Your task to perform on an android device: turn on data saver in the chrome app Image 0: 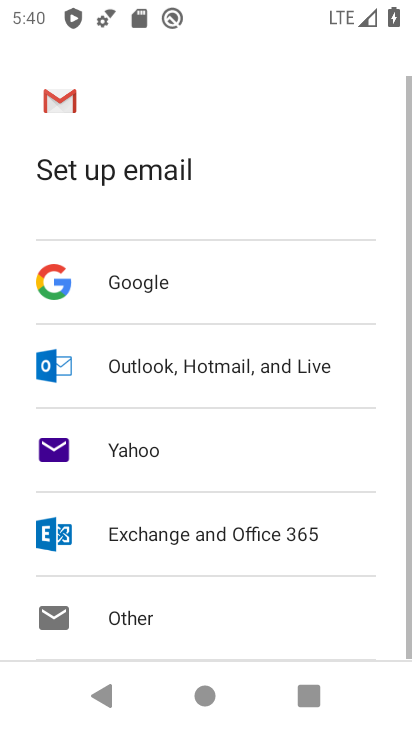
Step 0: press home button
Your task to perform on an android device: turn on data saver in the chrome app Image 1: 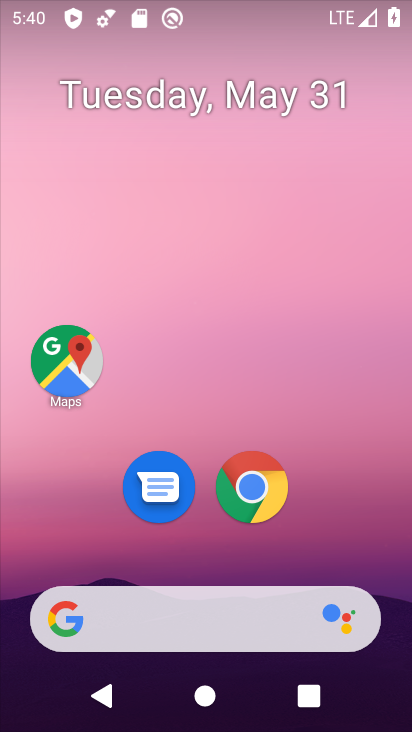
Step 1: click (269, 489)
Your task to perform on an android device: turn on data saver in the chrome app Image 2: 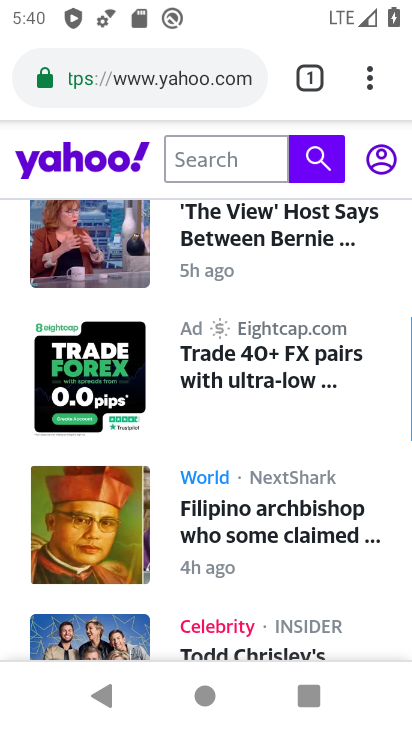
Step 2: click (363, 74)
Your task to perform on an android device: turn on data saver in the chrome app Image 3: 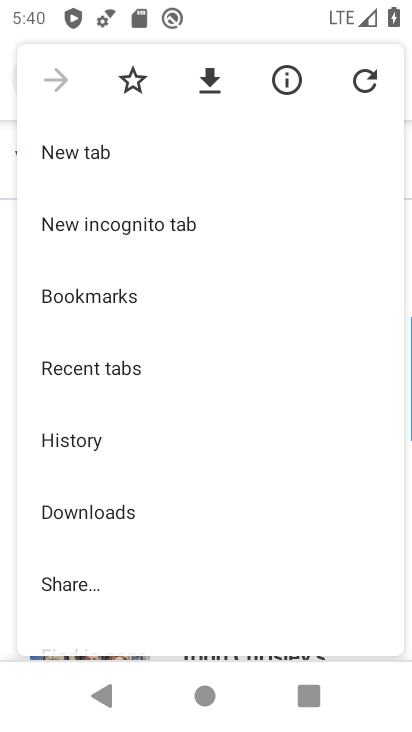
Step 3: drag from (215, 523) to (188, 224)
Your task to perform on an android device: turn on data saver in the chrome app Image 4: 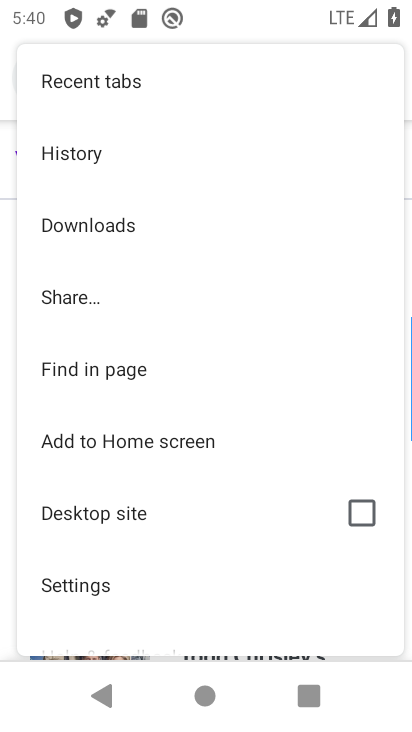
Step 4: click (95, 581)
Your task to perform on an android device: turn on data saver in the chrome app Image 5: 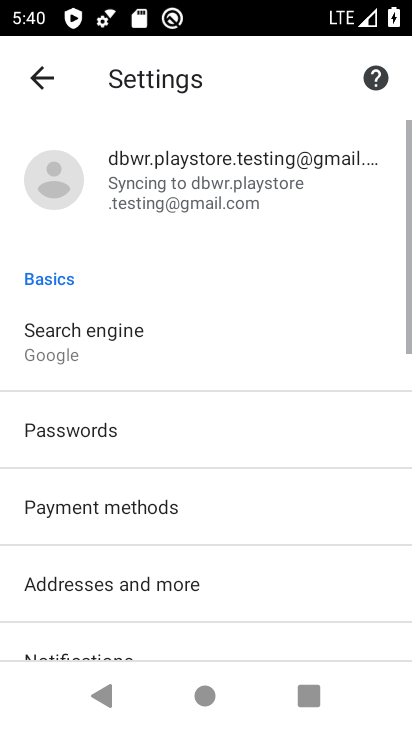
Step 5: drag from (324, 569) to (280, 237)
Your task to perform on an android device: turn on data saver in the chrome app Image 6: 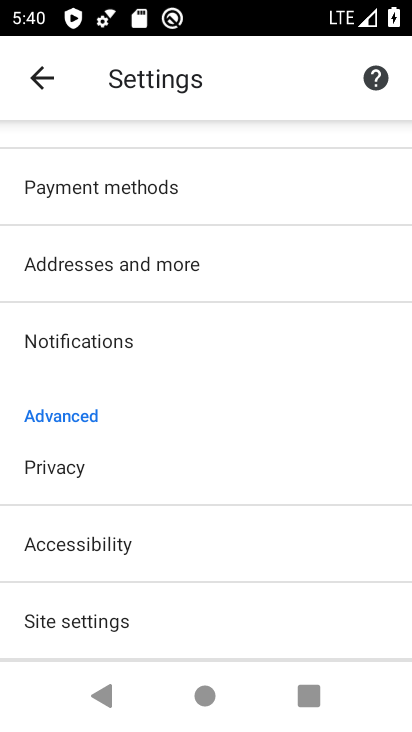
Step 6: drag from (222, 551) to (198, 230)
Your task to perform on an android device: turn on data saver in the chrome app Image 7: 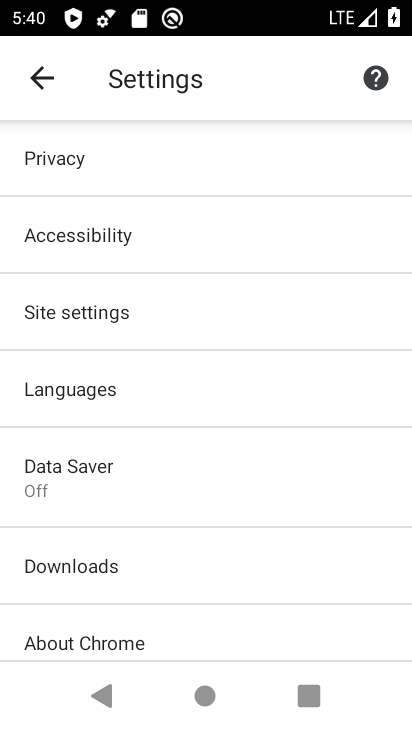
Step 7: click (62, 469)
Your task to perform on an android device: turn on data saver in the chrome app Image 8: 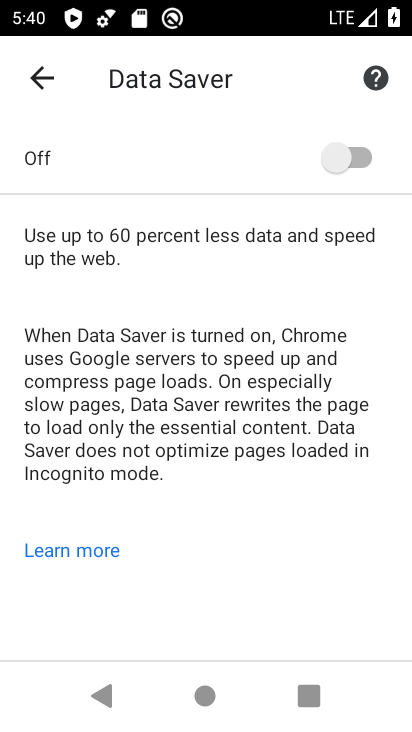
Step 8: click (338, 165)
Your task to perform on an android device: turn on data saver in the chrome app Image 9: 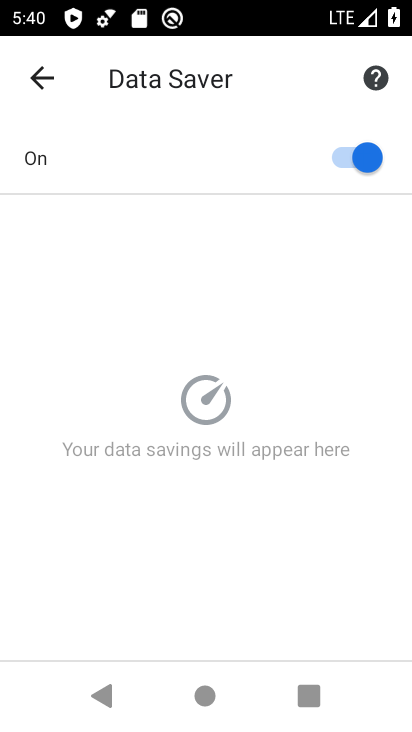
Step 9: task complete